Your task to perform on an android device: clear history in the chrome app Image 0: 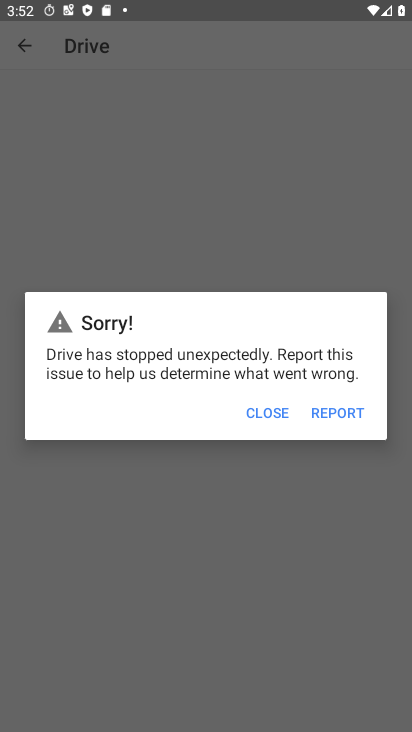
Step 0: press home button
Your task to perform on an android device: clear history in the chrome app Image 1: 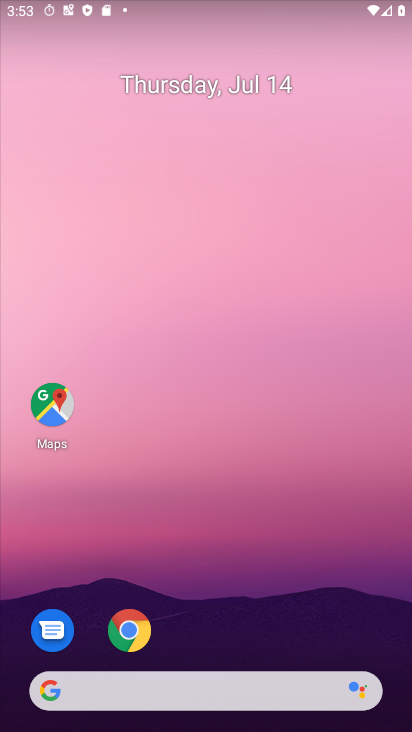
Step 1: click (127, 638)
Your task to perform on an android device: clear history in the chrome app Image 2: 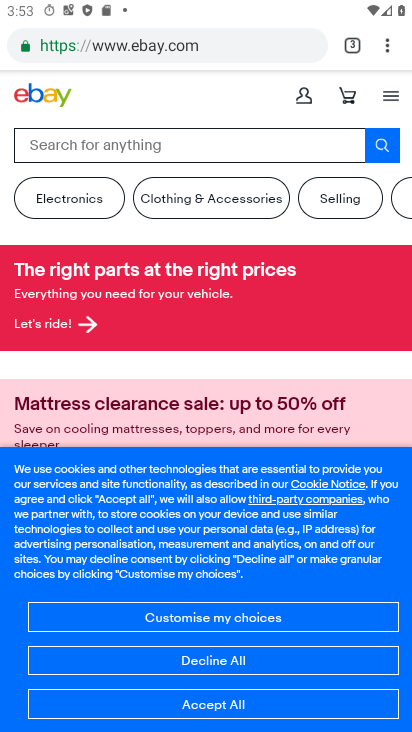
Step 2: click (387, 52)
Your task to perform on an android device: clear history in the chrome app Image 3: 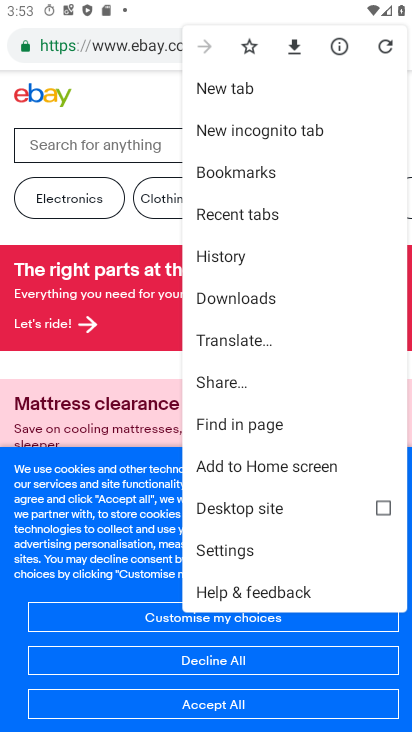
Step 3: click (230, 251)
Your task to perform on an android device: clear history in the chrome app Image 4: 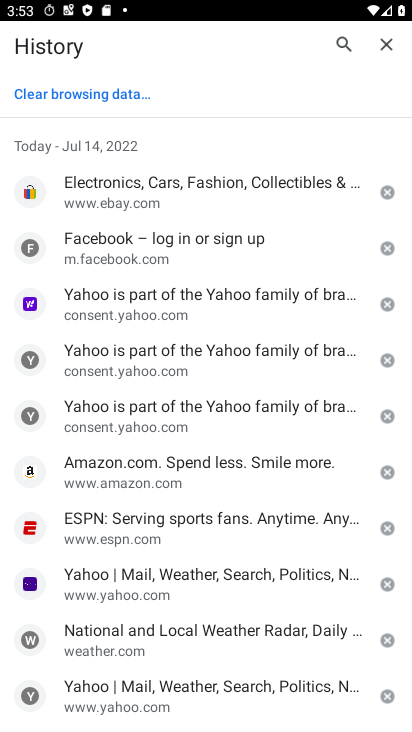
Step 4: click (121, 88)
Your task to perform on an android device: clear history in the chrome app Image 5: 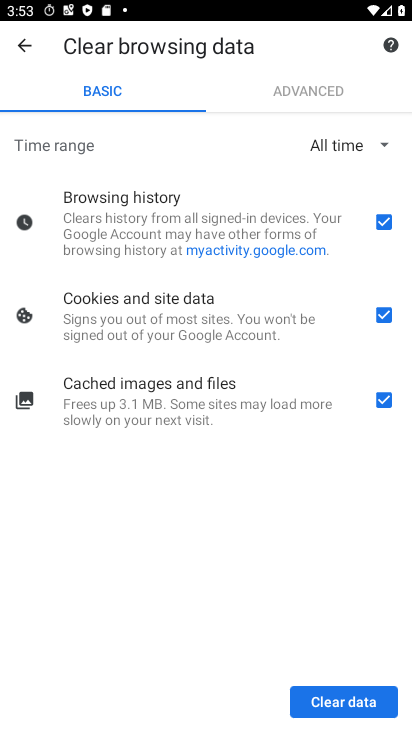
Step 5: click (380, 395)
Your task to perform on an android device: clear history in the chrome app Image 6: 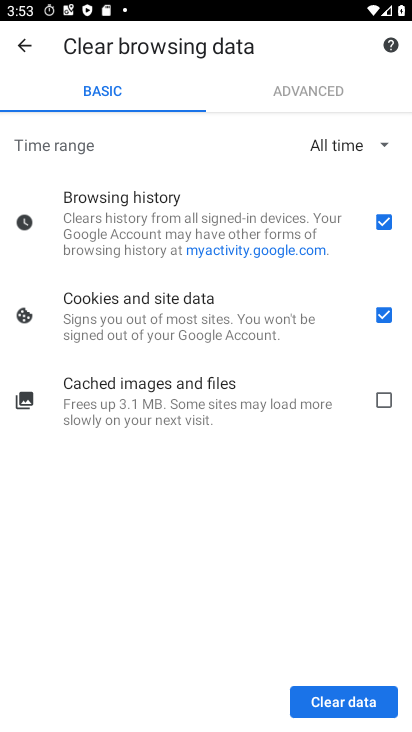
Step 6: click (386, 316)
Your task to perform on an android device: clear history in the chrome app Image 7: 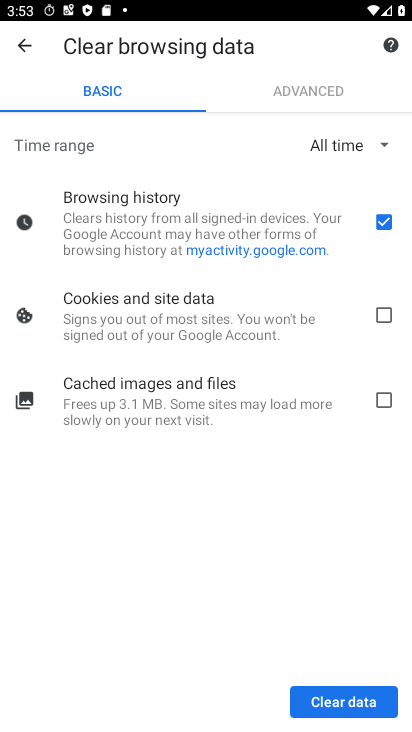
Step 7: click (356, 705)
Your task to perform on an android device: clear history in the chrome app Image 8: 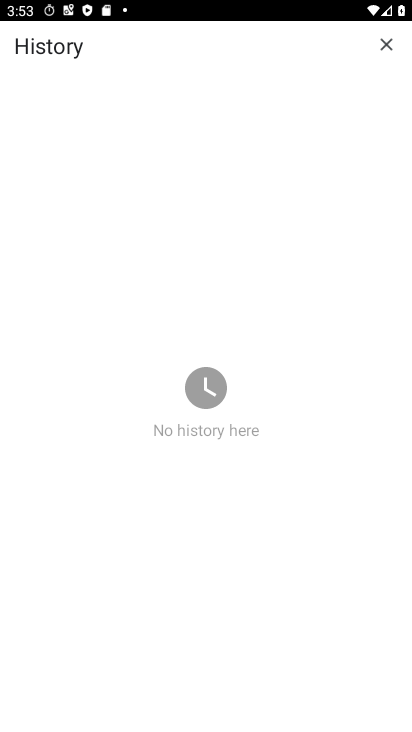
Step 8: task complete